Your task to perform on an android device: Turn off the flashlight Image 0: 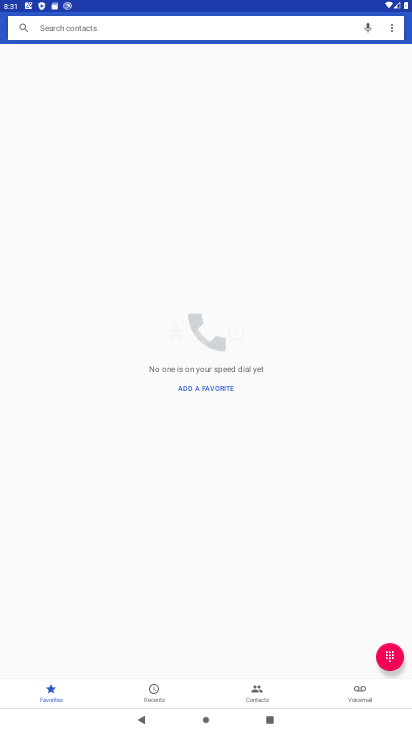
Step 0: press home button
Your task to perform on an android device: Turn off the flashlight Image 1: 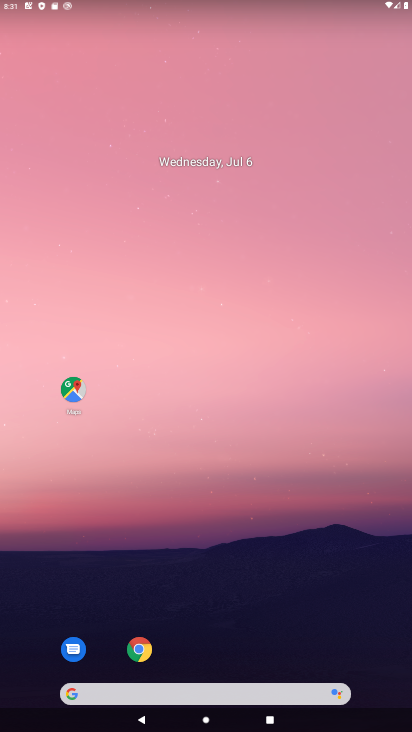
Step 1: drag from (225, 555) to (295, 68)
Your task to perform on an android device: Turn off the flashlight Image 2: 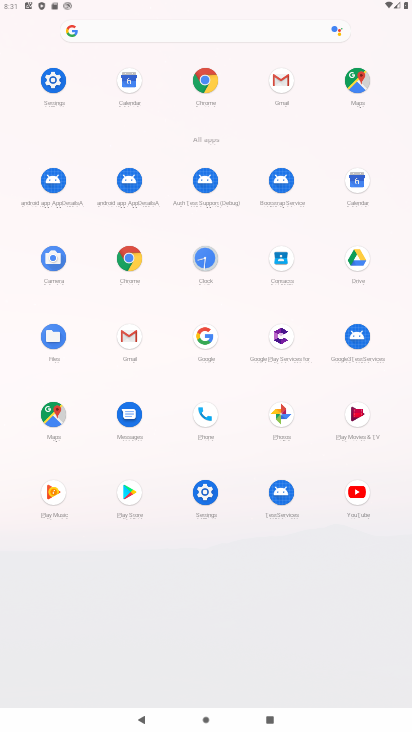
Step 2: click (212, 508)
Your task to perform on an android device: Turn off the flashlight Image 3: 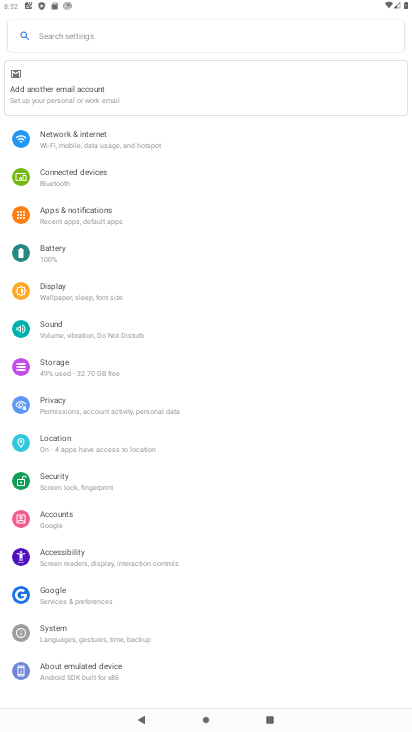
Step 3: click (153, 36)
Your task to perform on an android device: Turn off the flashlight Image 4: 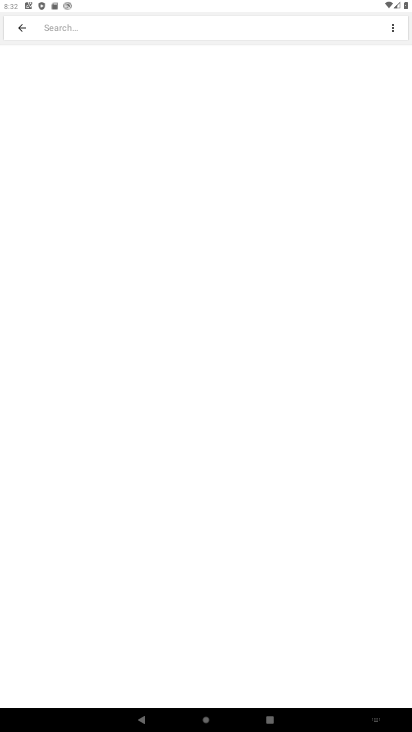
Step 4: type "flashlight"
Your task to perform on an android device: Turn off the flashlight Image 5: 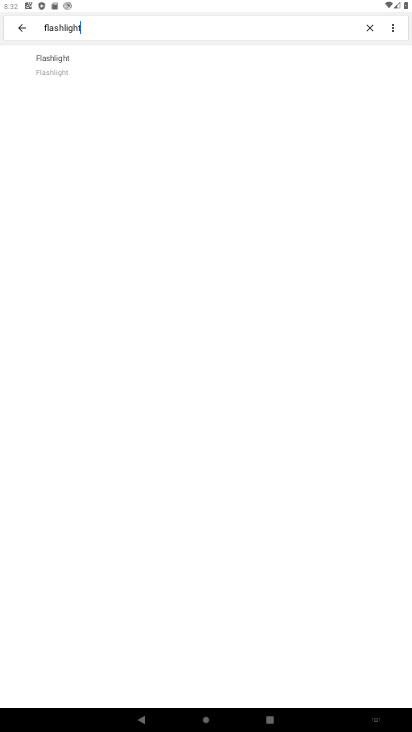
Step 5: click (44, 80)
Your task to perform on an android device: Turn off the flashlight Image 6: 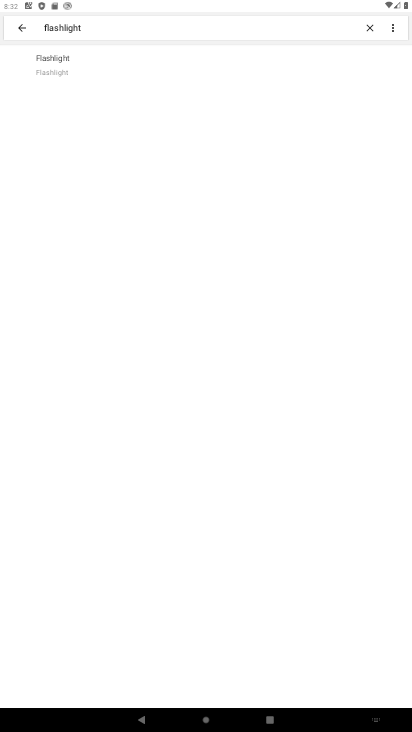
Step 6: task complete